Your task to perform on an android device: open the mobile data screen to see how much data has been used Image 0: 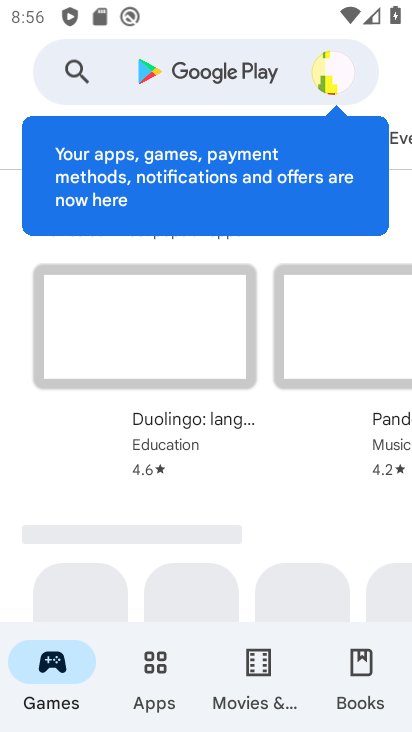
Step 0: press home button
Your task to perform on an android device: open the mobile data screen to see how much data has been used Image 1: 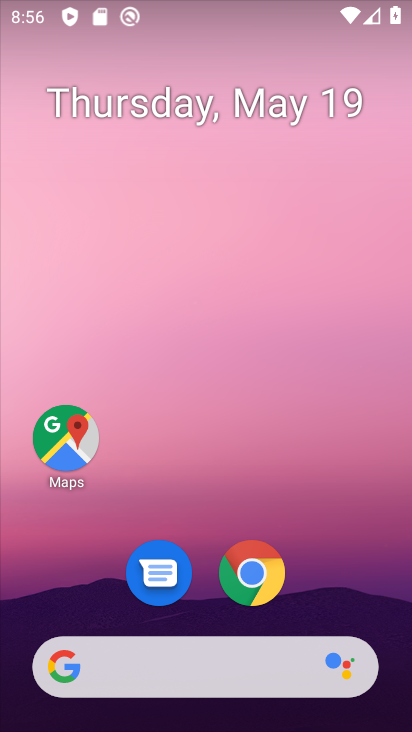
Step 1: drag from (223, 599) to (222, 210)
Your task to perform on an android device: open the mobile data screen to see how much data has been used Image 2: 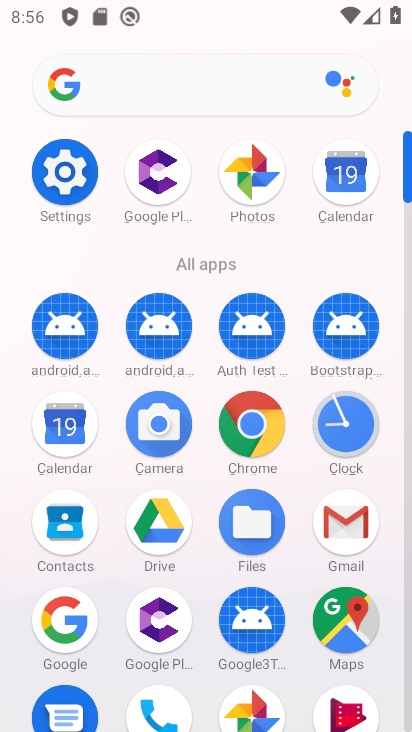
Step 2: click (78, 173)
Your task to perform on an android device: open the mobile data screen to see how much data has been used Image 3: 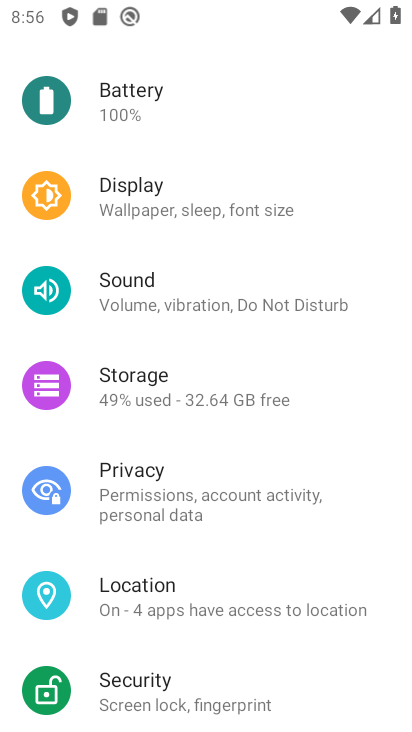
Step 3: drag from (171, 218) to (209, 452)
Your task to perform on an android device: open the mobile data screen to see how much data has been used Image 4: 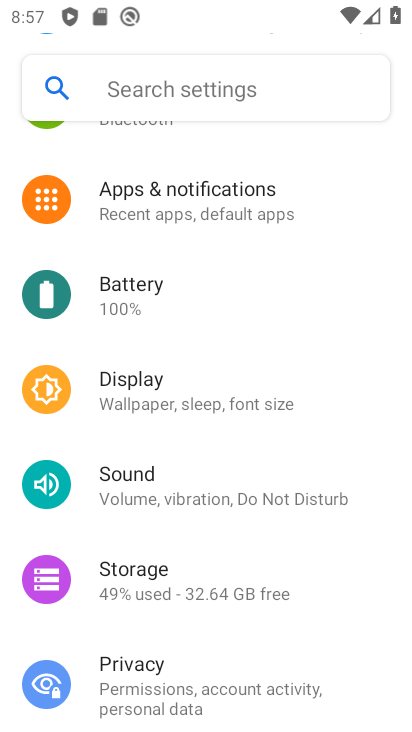
Step 4: drag from (203, 231) to (230, 416)
Your task to perform on an android device: open the mobile data screen to see how much data has been used Image 5: 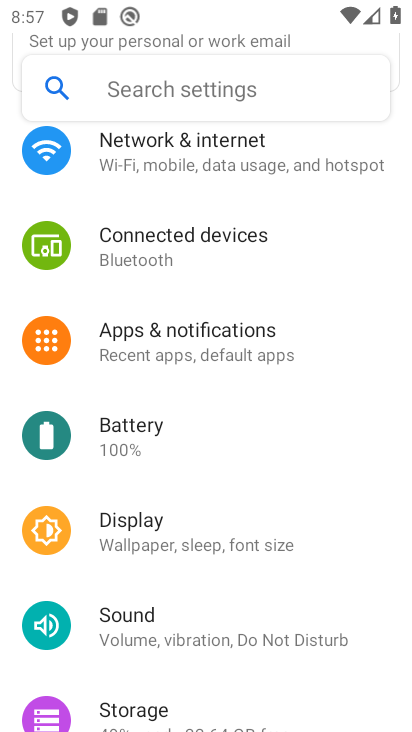
Step 5: drag from (204, 223) to (227, 327)
Your task to perform on an android device: open the mobile data screen to see how much data has been used Image 6: 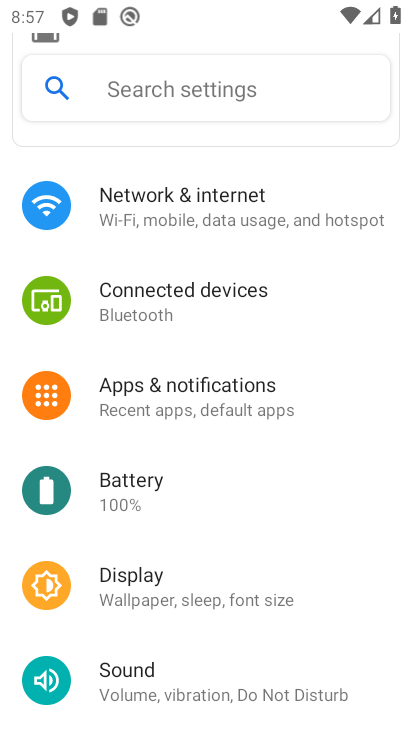
Step 6: click (210, 202)
Your task to perform on an android device: open the mobile data screen to see how much data has been used Image 7: 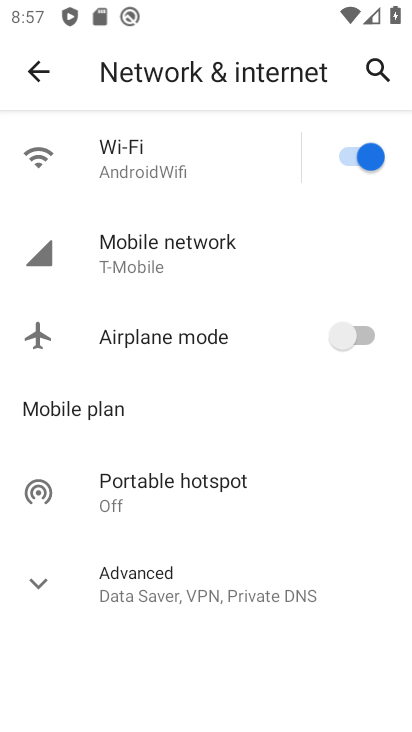
Step 7: click (230, 241)
Your task to perform on an android device: open the mobile data screen to see how much data has been used Image 8: 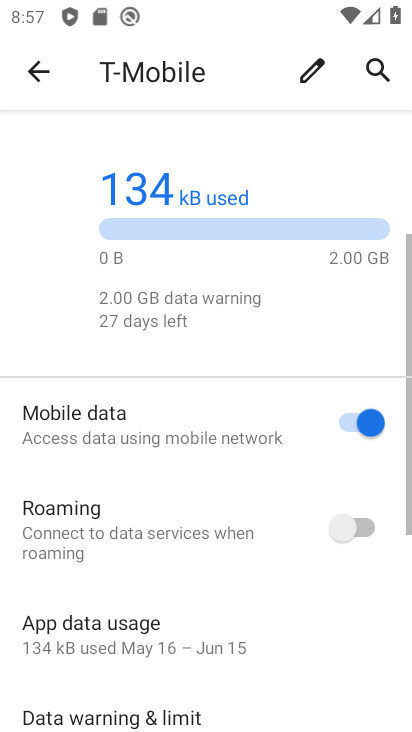
Step 8: drag from (255, 564) to (238, 387)
Your task to perform on an android device: open the mobile data screen to see how much data has been used Image 9: 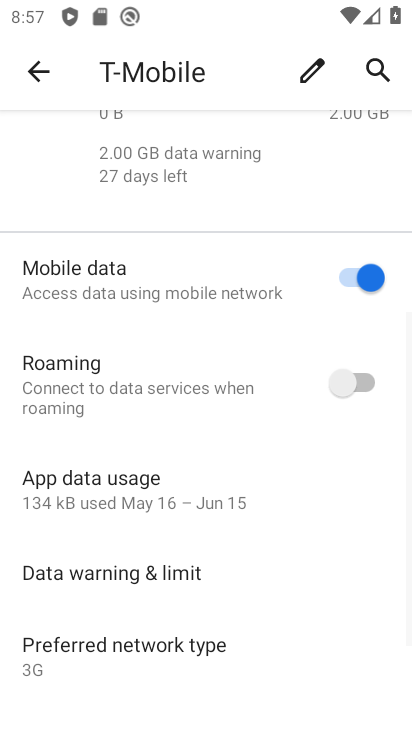
Step 9: click (157, 490)
Your task to perform on an android device: open the mobile data screen to see how much data has been used Image 10: 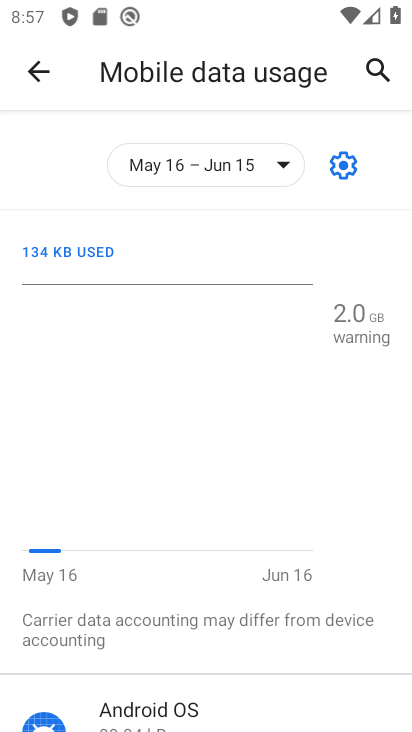
Step 10: task complete